Your task to perform on an android device: turn off picture-in-picture Image 0: 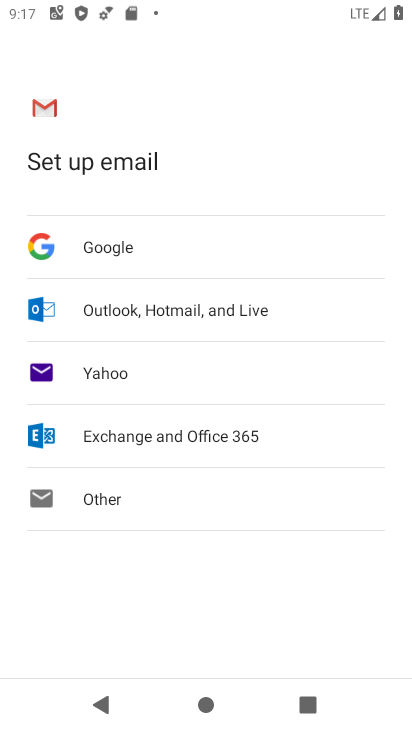
Step 0: press home button
Your task to perform on an android device: turn off picture-in-picture Image 1: 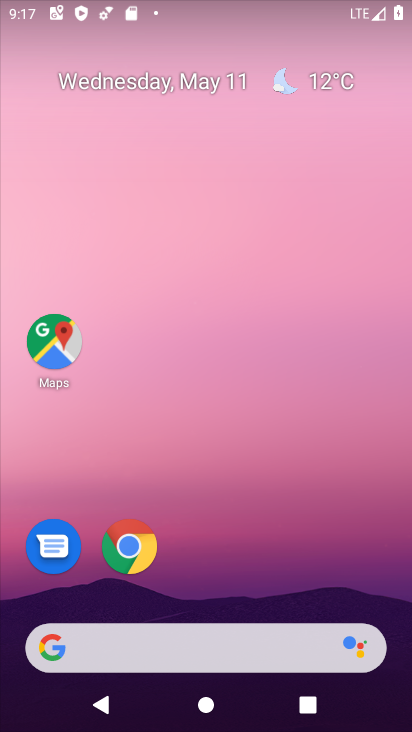
Step 1: drag from (388, 637) to (239, 266)
Your task to perform on an android device: turn off picture-in-picture Image 2: 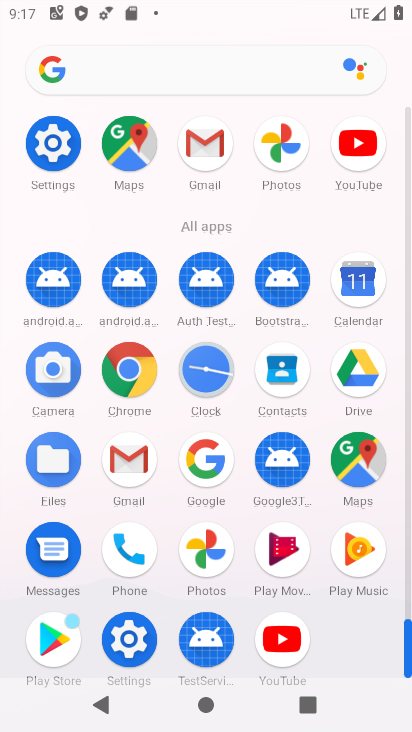
Step 2: click (126, 635)
Your task to perform on an android device: turn off picture-in-picture Image 3: 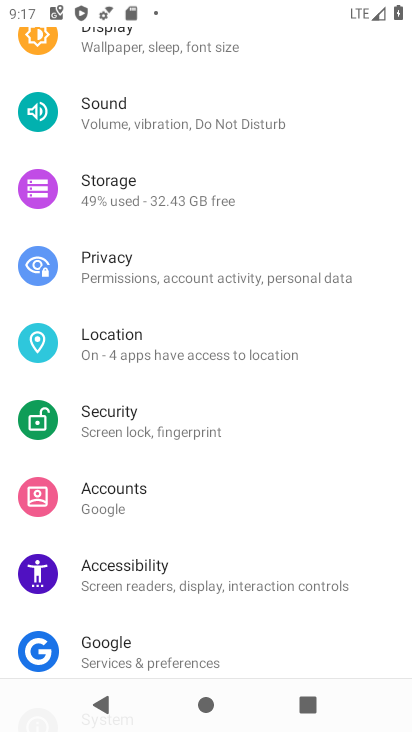
Step 3: drag from (344, 97) to (300, 374)
Your task to perform on an android device: turn off picture-in-picture Image 4: 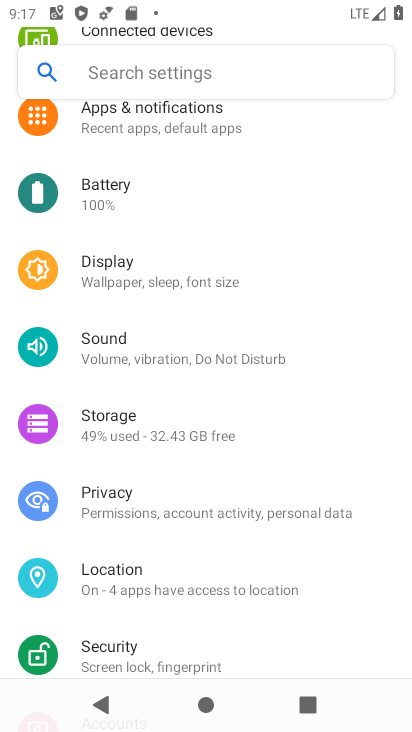
Step 4: drag from (282, 189) to (283, 484)
Your task to perform on an android device: turn off picture-in-picture Image 5: 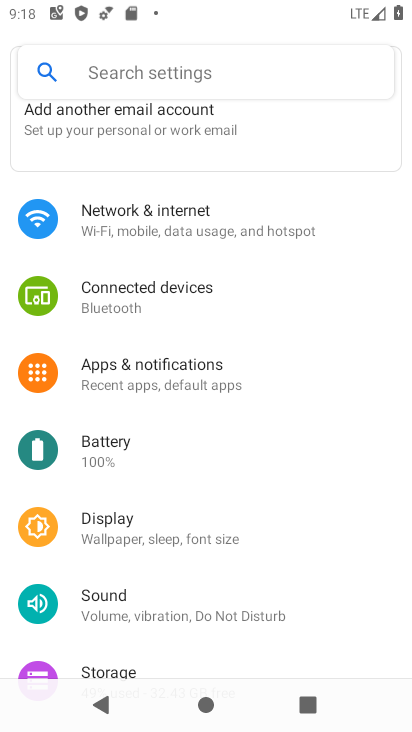
Step 5: click (116, 364)
Your task to perform on an android device: turn off picture-in-picture Image 6: 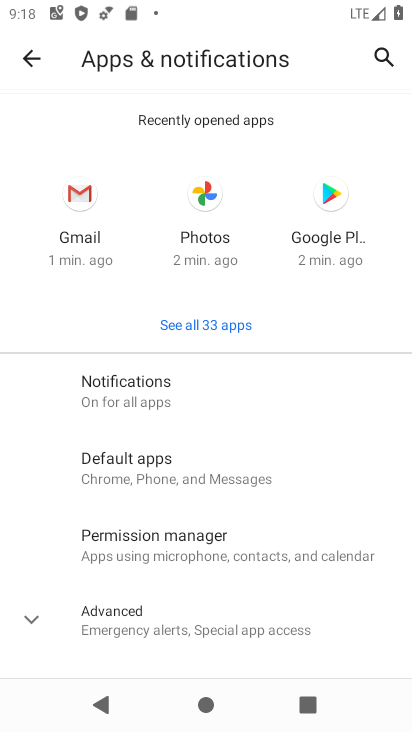
Step 6: click (37, 627)
Your task to perform on an android device: turn off picture-in-picture Image 7: 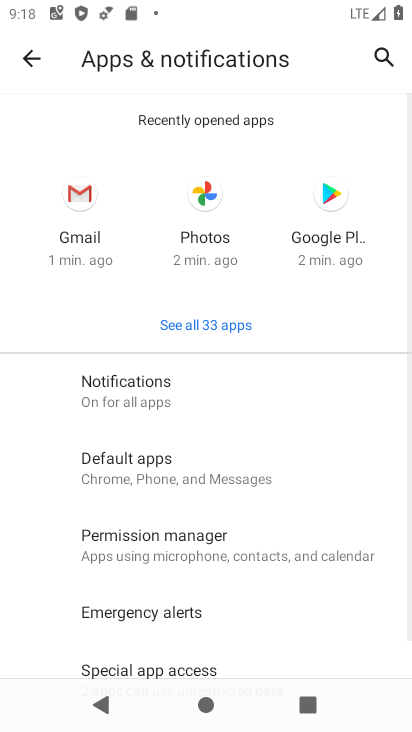
Step 7: drag from (275, 654) to (287, 251)
Your task to perform on an android device: turn off picture-in-picture Image 8: 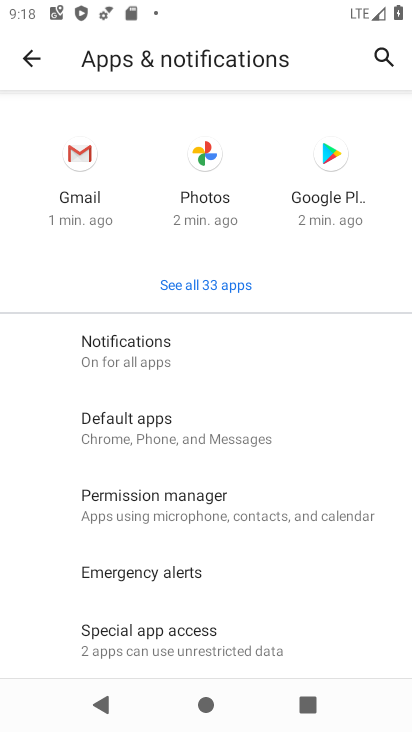
Step 8: click (134, 633)
Your task to perform on an android device: turn off picture-in-picture Image 9: 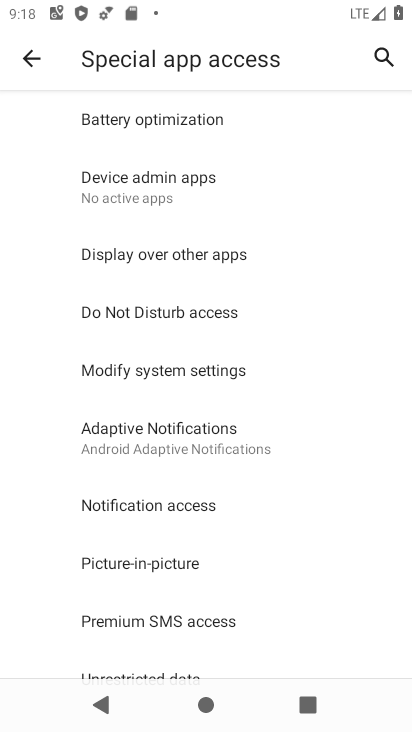
Step 9: click (137, 564)
Your task to perform on an android device: turn off picture-in-picture Image 10: 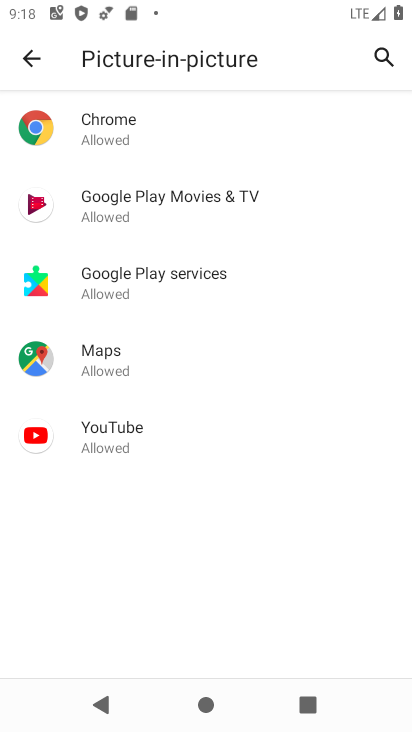
Step 10: click (88, 423)
Your task to perform on an android device: turn off picture-in-picture Image 11: 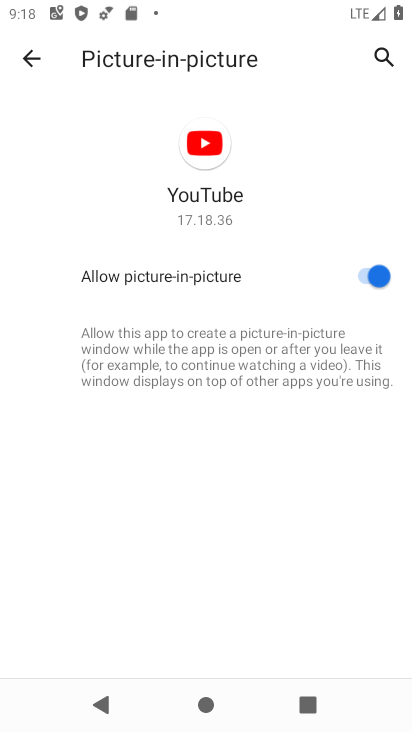
Step 11: click (365, 277)
Your task to perform on an android device: turn off picture-in-picture Image 12: 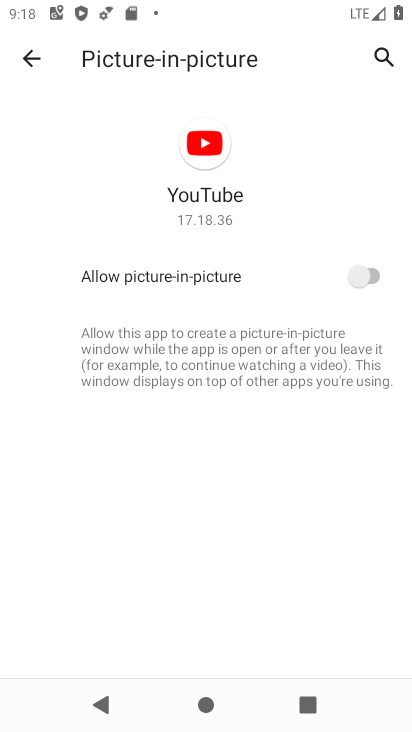
Step 12: task complete